Your task to perform on an android device: clear history in the chrome app Image 0: 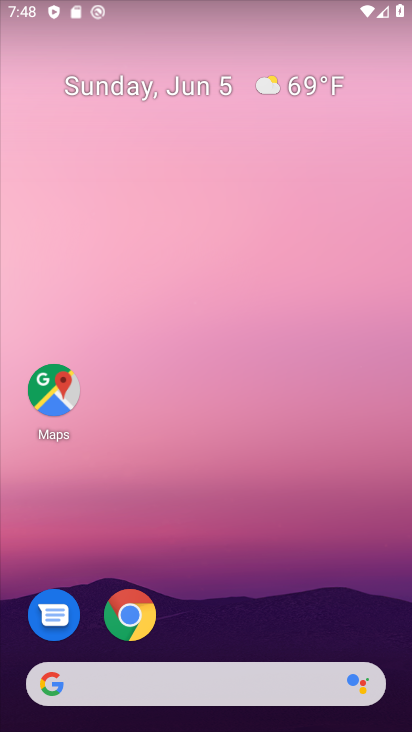
Step 0: click (135, 615)
Your task to perform on an android device: clear history in the chrome app Image 1: 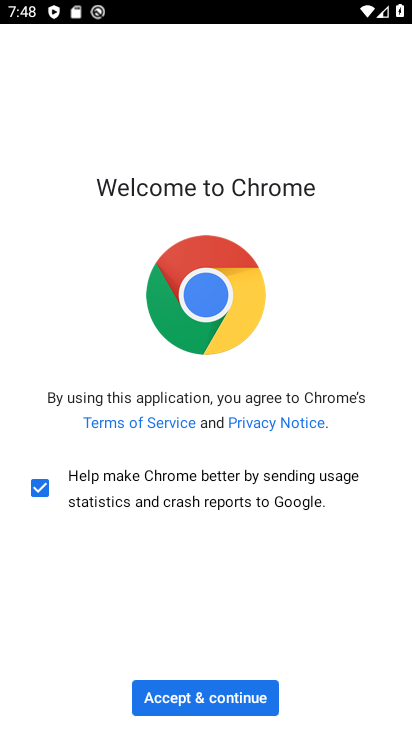
Step 1: click (205, 695)
Your task to perform on an android device: clear history in the chrome app Image 2: 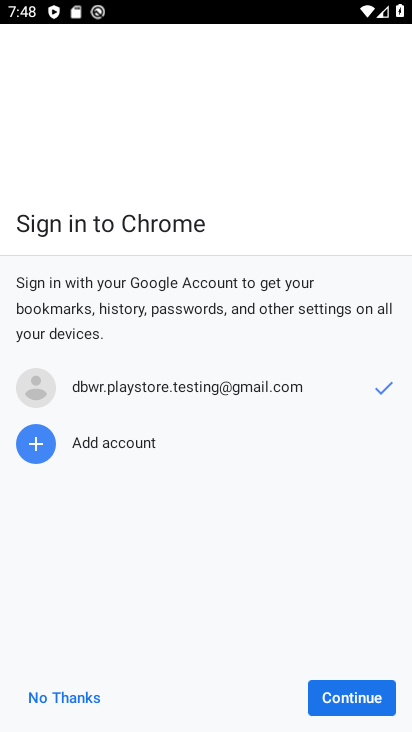
Step 2: click (347, 708)
Your task to perform on an android device: clear history in the chrome app Image 3: 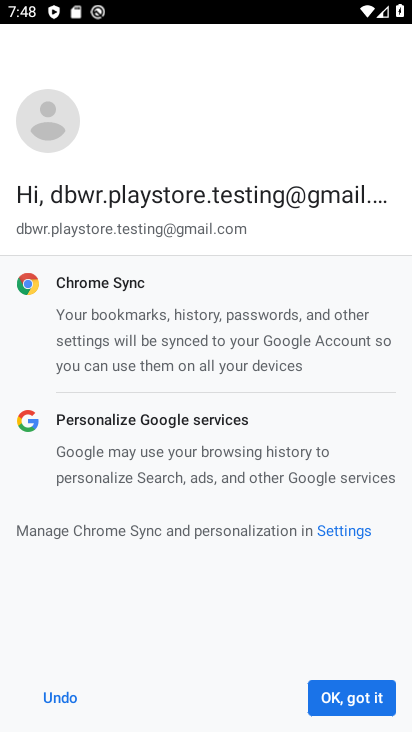
Step 3: click (347, 703)
Your task to perform on an android device: clear history in the chrome app Image 4: 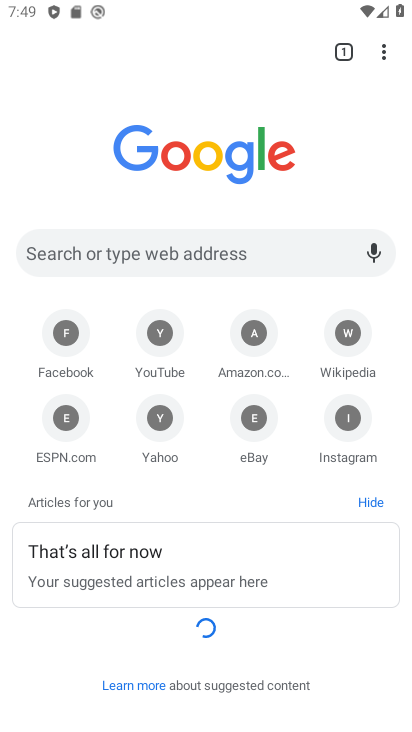
Step 4: click (383, 46)
Your task to perform on an android device: clear history in the chrome app Image 5: 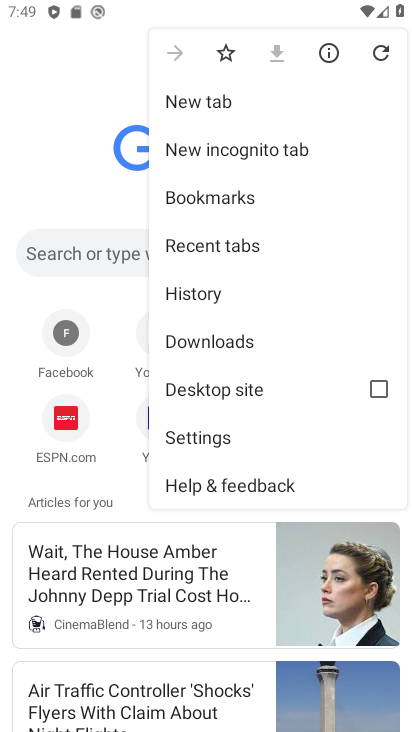
Step 5: click (195, 296)
Your task to perform on an android device: clear history in the chrome app Image 6: 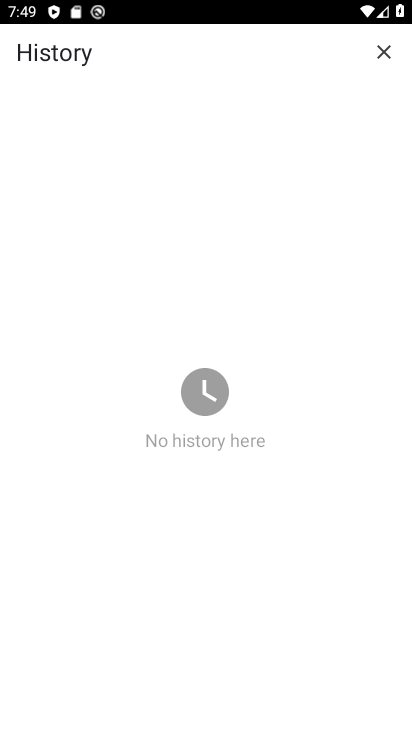
Step 6: task complete